Your task to perform on an android device: turn on priority inbox in the gmail app Image 0: 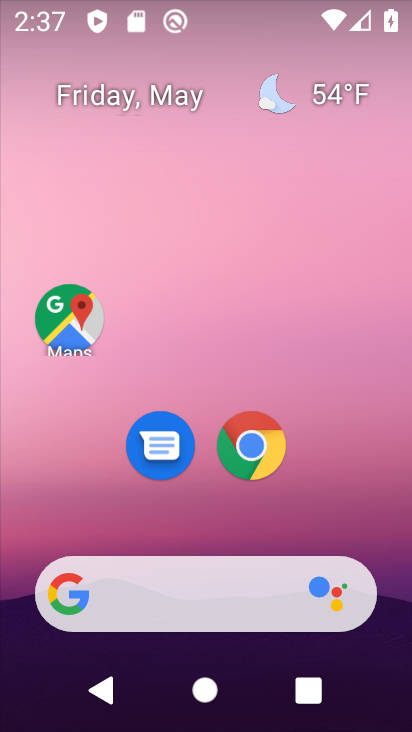
Step 0: drag from (345, 518) to (340, 226)
Your task to perform on an android device: turn on priority inbox in the gmail app Image 1: 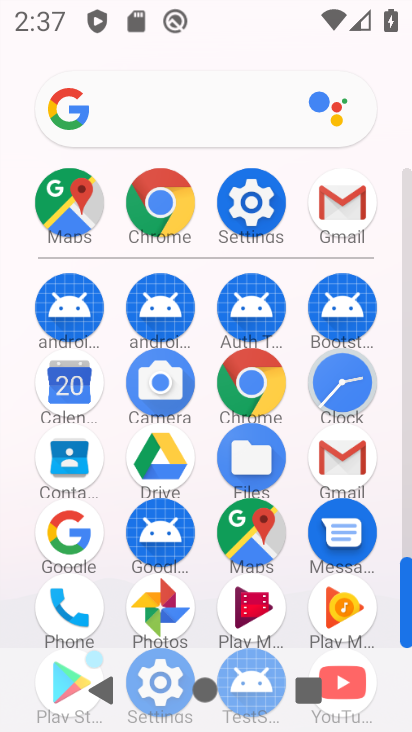
Step 1: click (333, 463)
Your task to perform on an android device: turn on priority inbox in the gmail app Image 2: 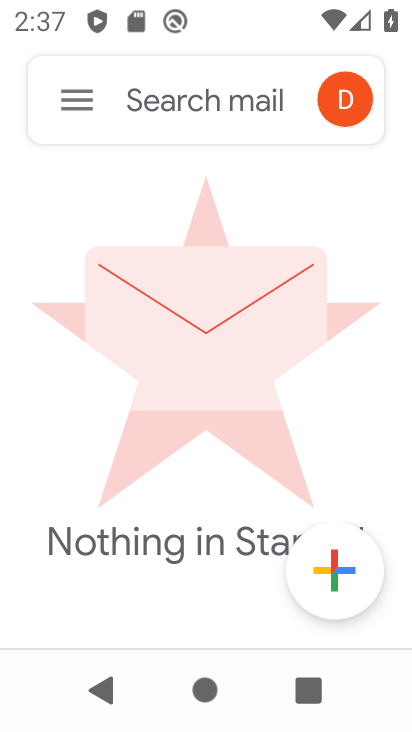
Step 2: click (68, 85)
Your task to perform on an android device: turn on priority inbox in the gmail app Image 3: 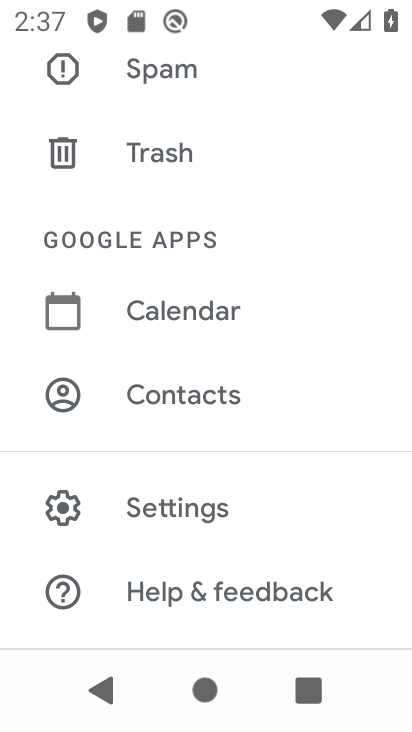
Step 3: click (219, 496)
Your task to perform on an android device: turn on priority inbox in the gmail app Image 4: 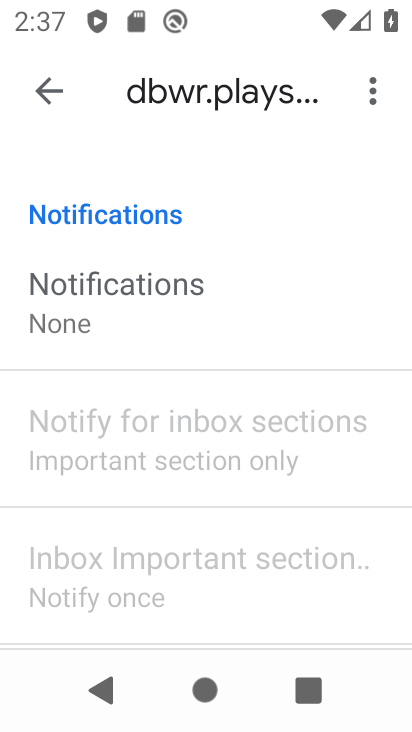
Step 4: task complete